Your task to perform on an android device: Open Wikipedia Image 0: 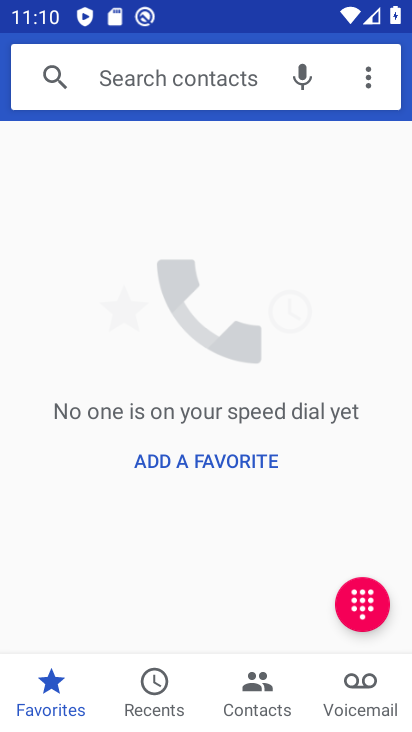
Step 0: press home button
Your task to perform on an android device: Open Wikipedia Image 1: 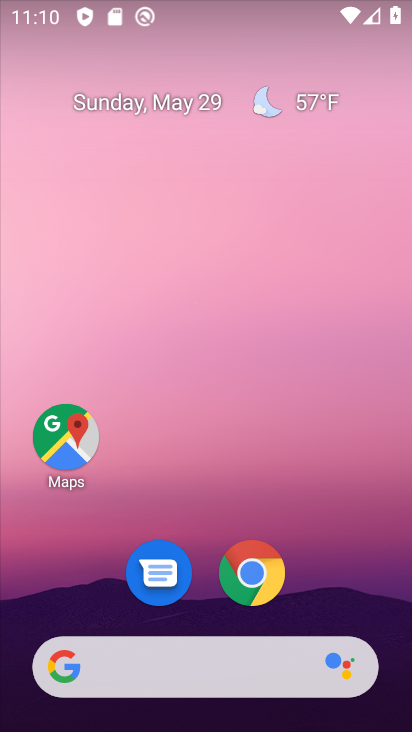
Step 1: drag from (292, 626) to (324, 146)
Your task to perform on an android device: Open Wikipedia Image 2: 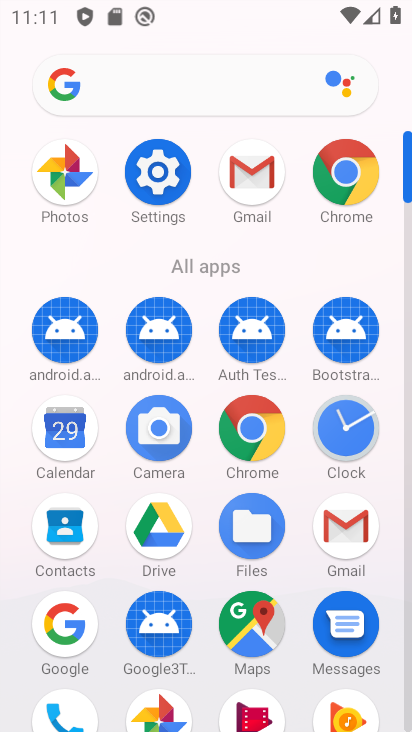
Step 2: click (253, 426)
Your task to perform on an android device: Open Wikipedia Image 3: 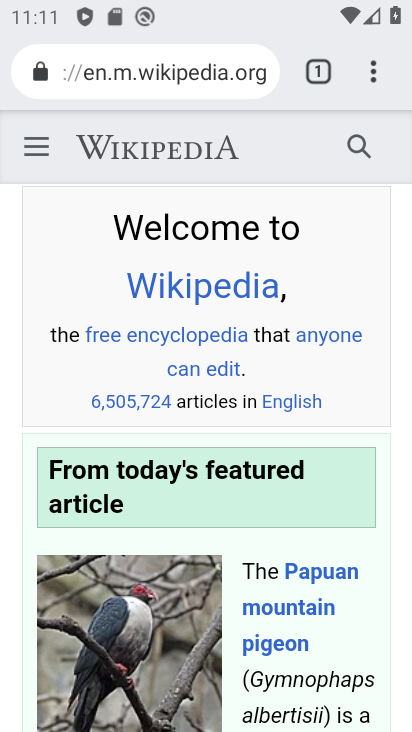
Step 3: task complete